Your task to perform on an android device: Open calendar and show me the second week of next month Image 0: 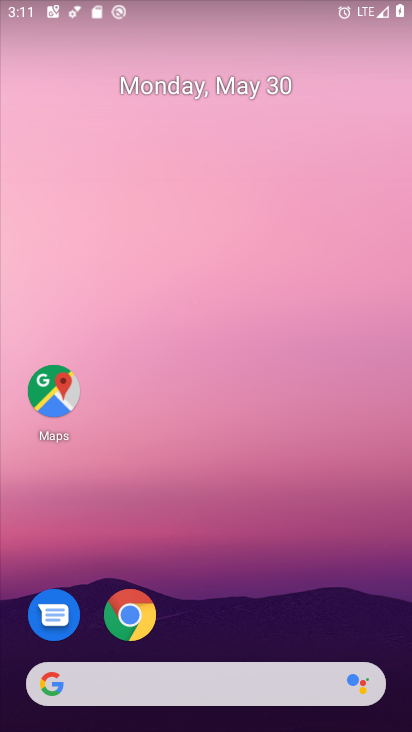
Step 0: drag from (258, 539) to (314, 81)
Your task to perform on an android device: Open calendar and show me the second week of next month Image 1: 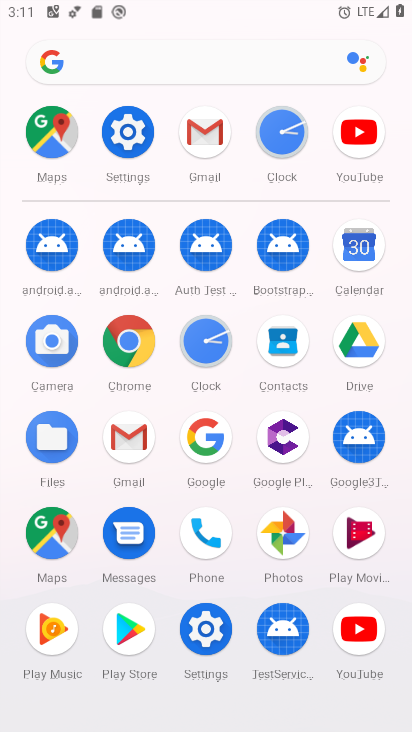
Step 1: click (357, 246)
Your task to perform on an android device: Open calendar and show me the second week of next month Image 2: 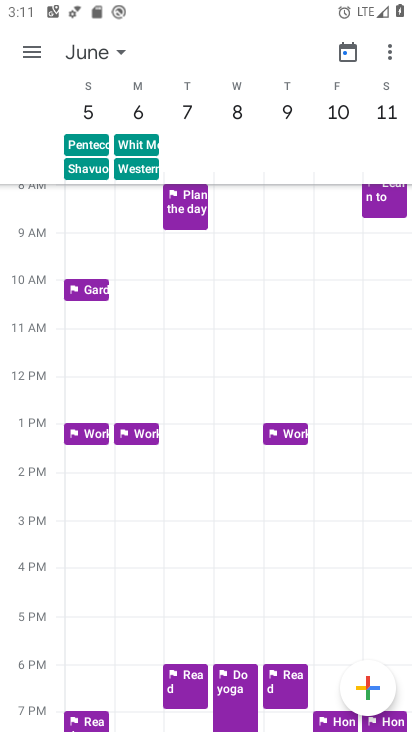
Step 2: task complete